Your task to perform on an android device: Do I have any events tomorrow? Image 0: 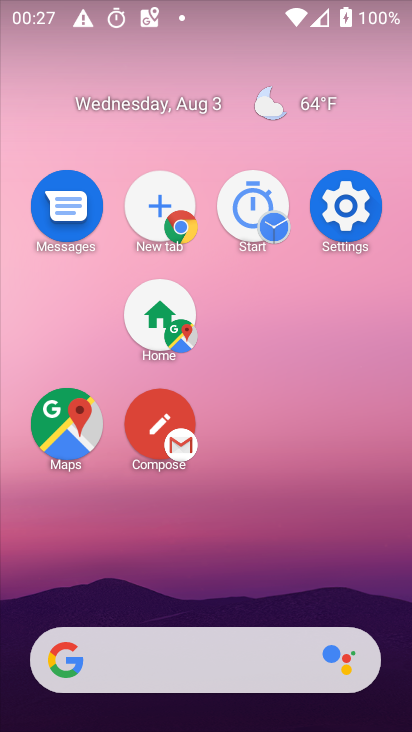
Step 0: drag from (316, 375) to (250, 109)
Your task to perform on an android device: Do I have any events tomorrow? Image 1: 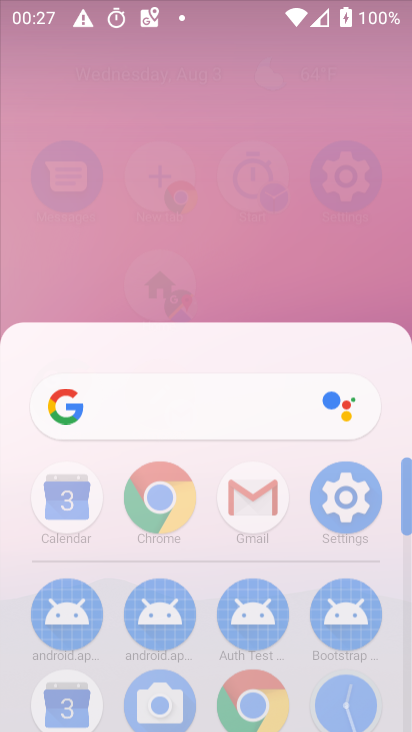
Step 1: drag from (228, 344) to (159, 88)
Your task to perform on an android device: Do I have any events tomorrow? Image 2: 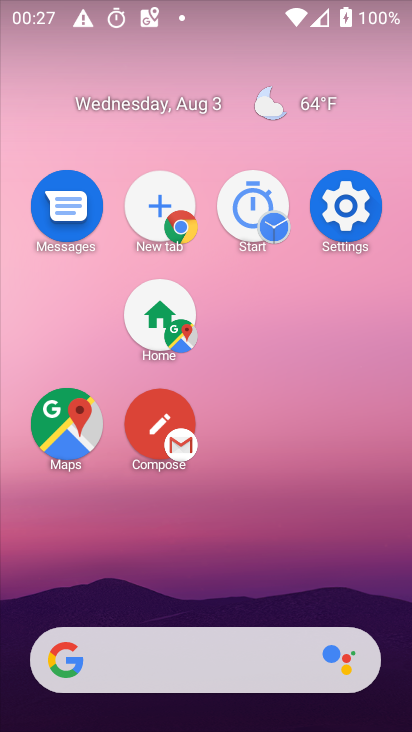
Step 2: drag from (278, 524) to (199, 101)
Your task to perform on an android device: Do I have any events tomorrow? Image 3: 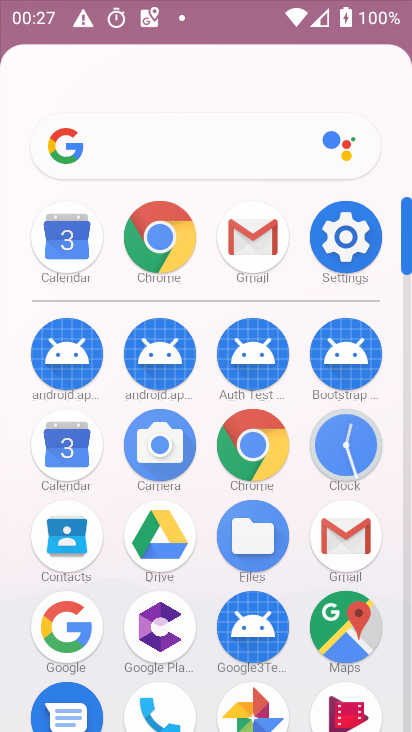
Step 3: drag from (202, 514) to (150, 143)
Your task to perform on an android device: Do I have any events tomorrow? Image 4: 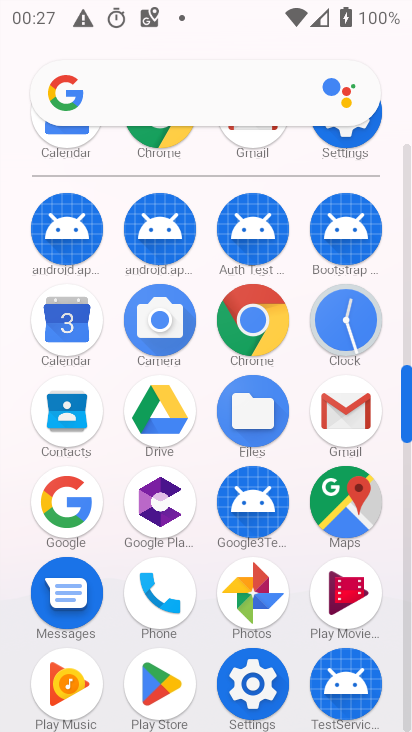
Step 4: drag from (259, 290) to (237, 134)
Your task to perform on an android device: Do I have any events tomorrow? Image 5: 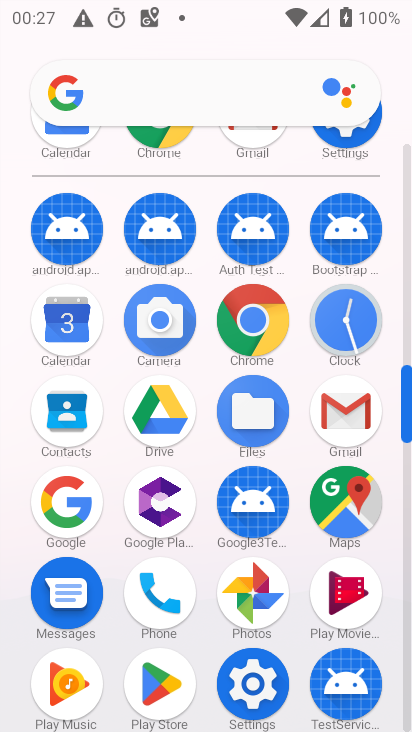
Step 5: click (44, 329)
Your task to perform on an android device: Do I have any events tomorrow? Image 6: 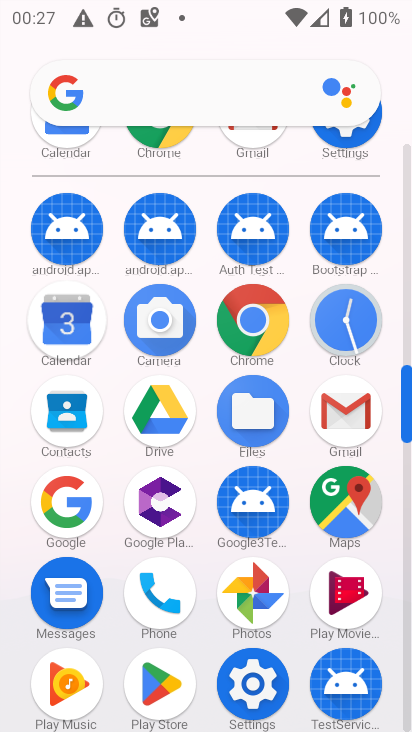
Step 6: click (60, 329)
Your task to perform on an android device: Do I have any events tomorrow? Image 7: 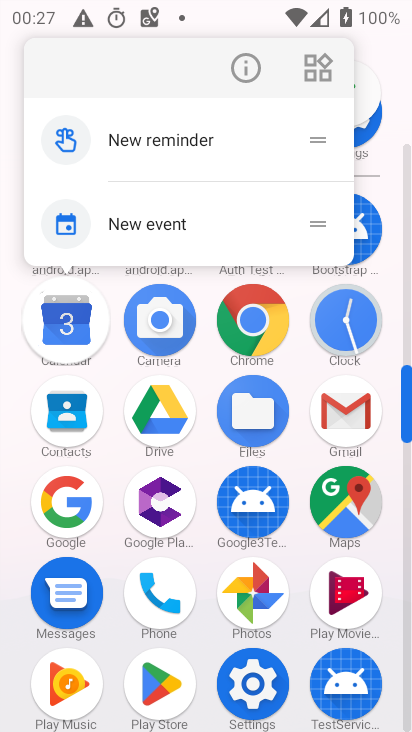
Step 7: click (60, 332)
Your task to perform on an android device: Do I have any events tomorrow? Image 8: 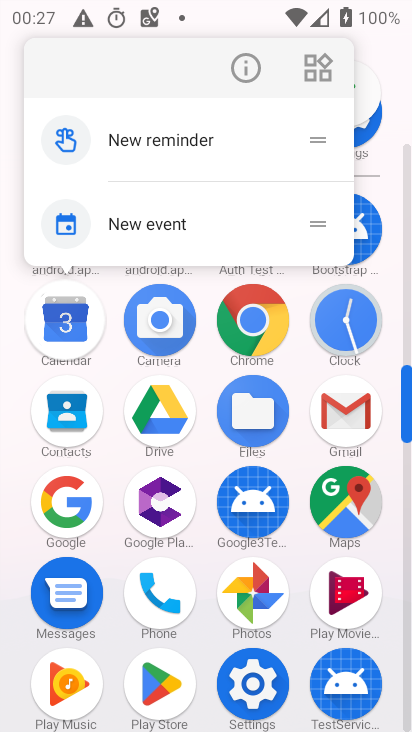
Step 8: click (61, 334)
Your task to perform on an android device: Do I have any events tomorrow? Image 9: 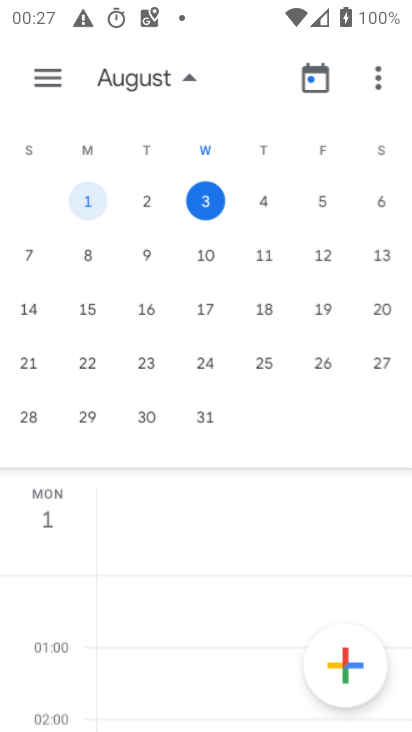
Step 9: click (73, 317)
Your task to perform on an android device: Do I have any events tomorrow? Image 10: 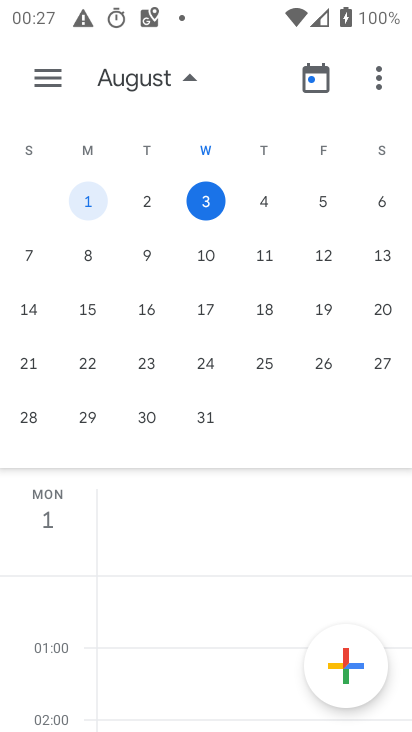
Step 10: click (72, 313)
Your task to perform on an android device: Do I have any events tomorrow? Image 11: 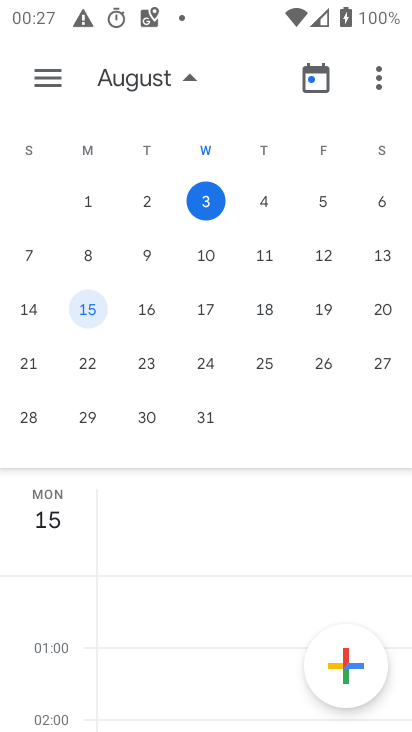
Step 11: click (260, 199)
Your task to perform on an android device: Do I have any events tomorrow? Image 12: 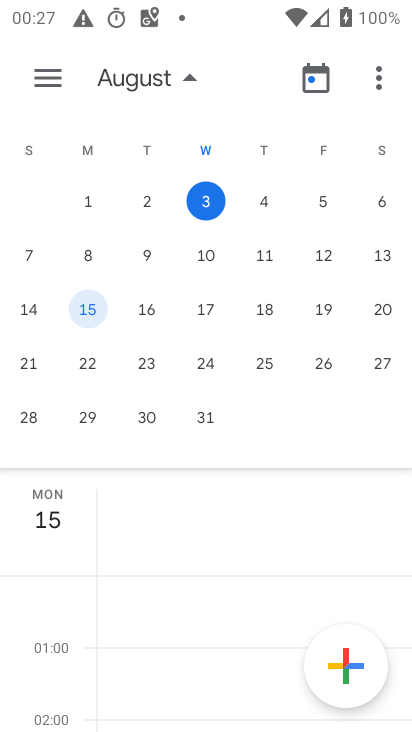
Step 12: click (260, 199)
Your task to perform on an android device: Do I have any events tomorrow? Image 13: 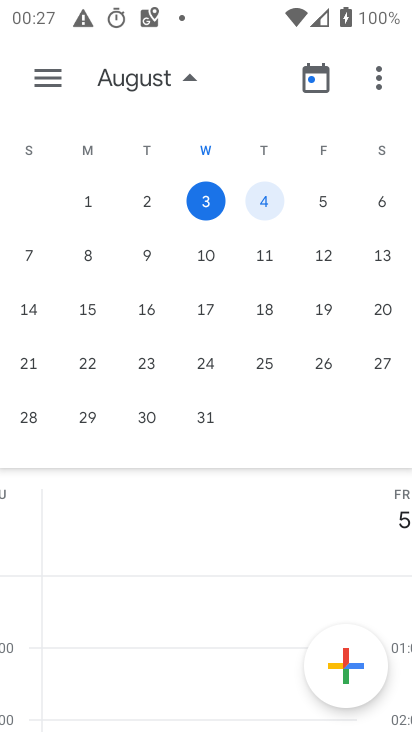
Step 13: click (263, 198)
Your task to perform on an android device: Do I have any events tomorrow? Image 14: 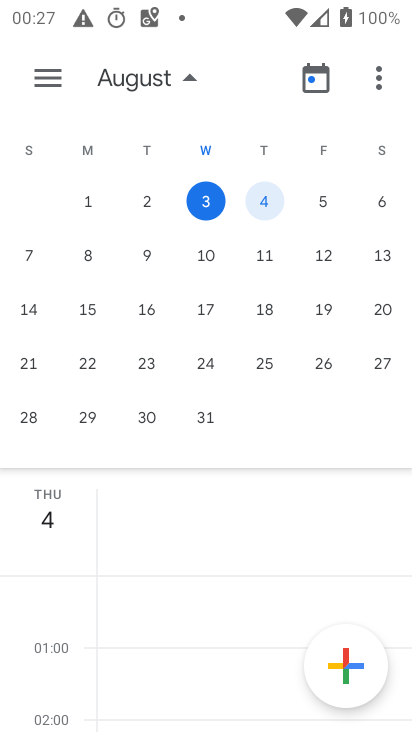
Step 14: click (261, 196)
Your task to perform on an android device: Do I have any events tomorrow? Image 15: 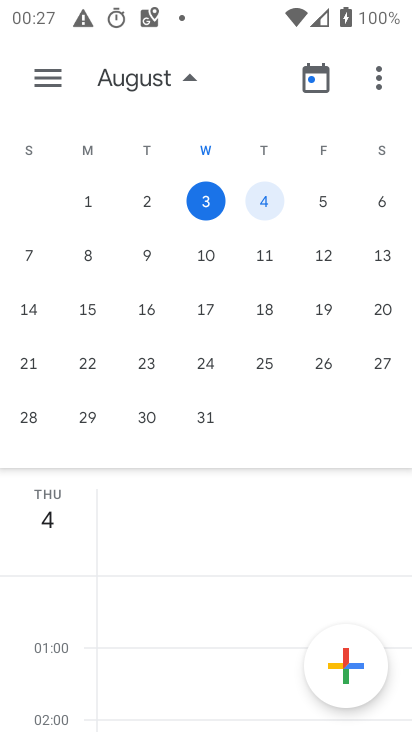
Step 15: task complete